Your task to perform on an android device: change text size in settings app Image 0: 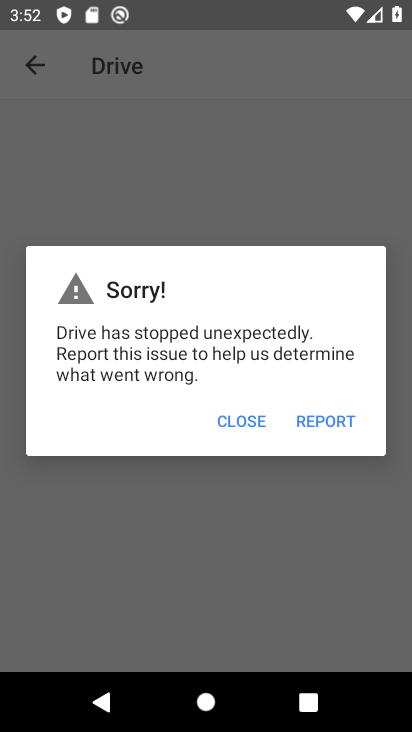
Step 0: press home button
Your task to perform on an android device: change text size in settings app Image 1: 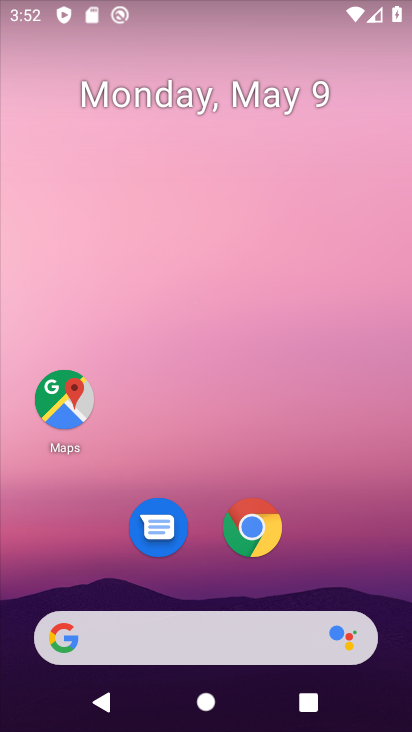
Step 1: drag from (186, 598) to (243, 110)
Your task to perform on an android device: change text size in settings app Image 2: 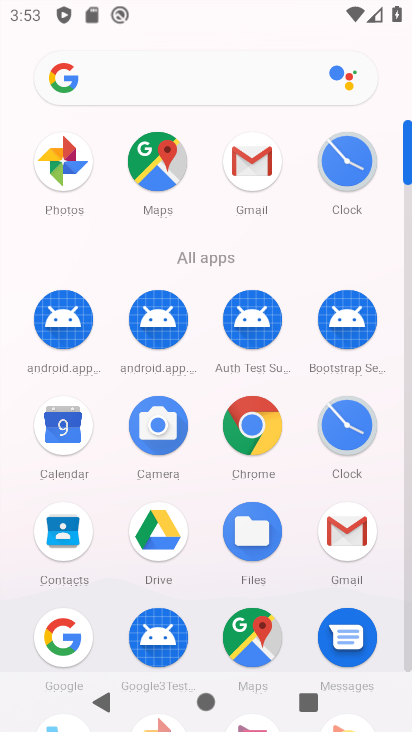
Step 2: drag from (204, 591) to (242, 295)
Your task to perform on an android device: change text size in settings app Image 3: 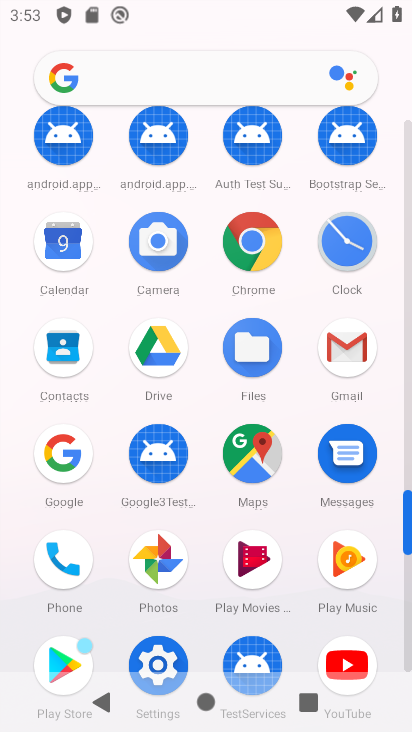
Step 3: click (157, 652)
Your task to perform on an android device: change text size in settings app Image 4: 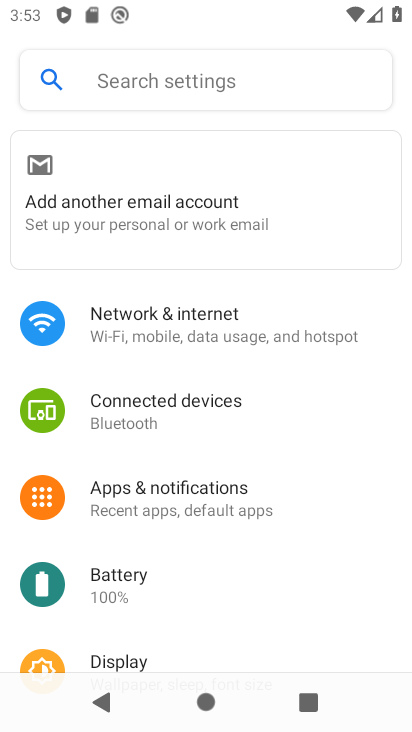
Step 4: drag from (94, 624) to (163, 305)
Your task to perform on an android device: change text size in settings app Image 5: 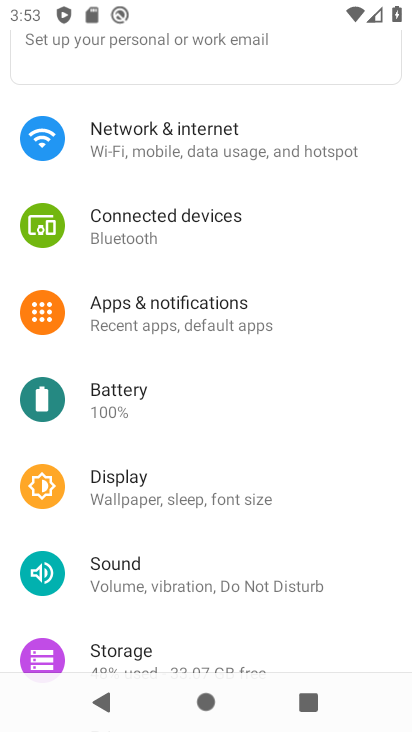
Step 5: click (165, 515)
Your task to perform on an android device: change text size in settings app Image 6: 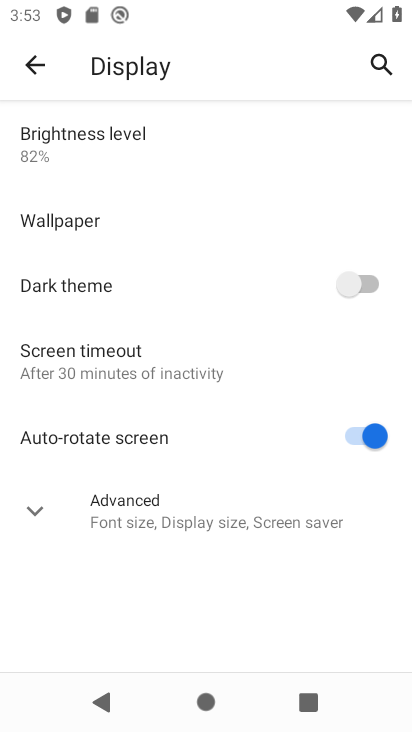
Step 6: click (242, 521)
Your task to perform on an android device: change text size in settings app Image 7: 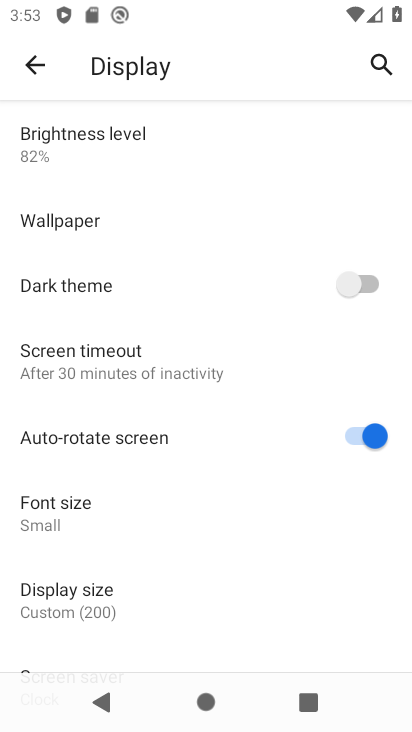
Step 7: click (208, 513)
Your task to perform on an android device: change text size in settings app Image 8: 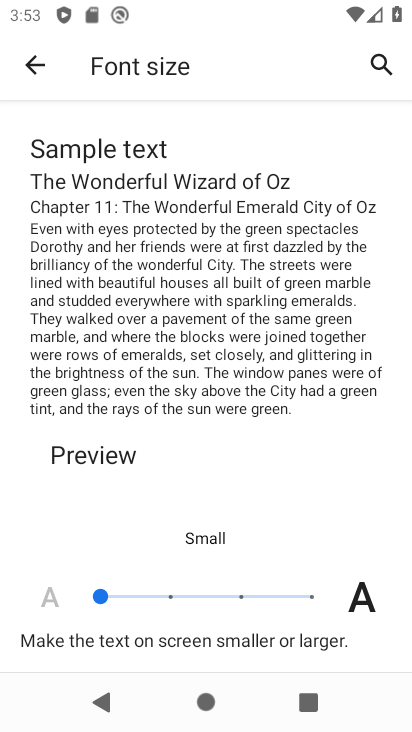
Step 8: click (313, 598)
Your task to perform on an android device: change text size in settings app Image 9: 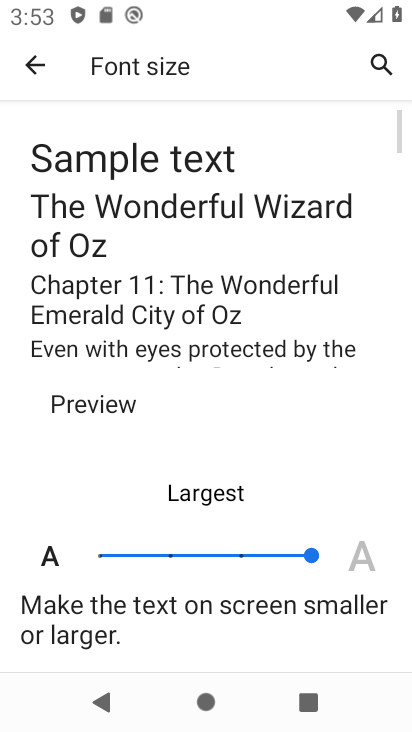
Step 9: task complete